Your task to perform on an android device: visit the assistant section in the google photos Image 0: 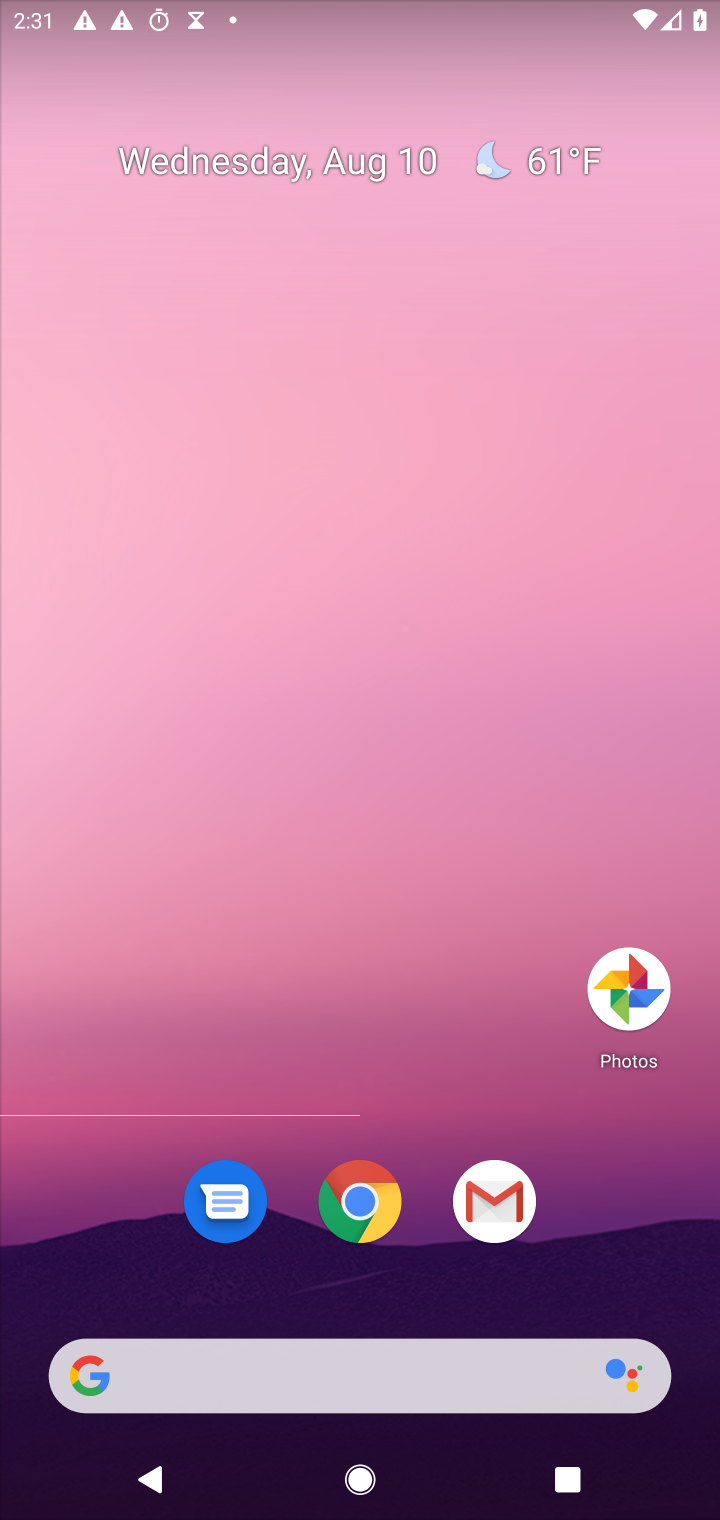
Step 0: press home button
Your task to perform on an android device: visit the assistant section in the google photos Image 1: 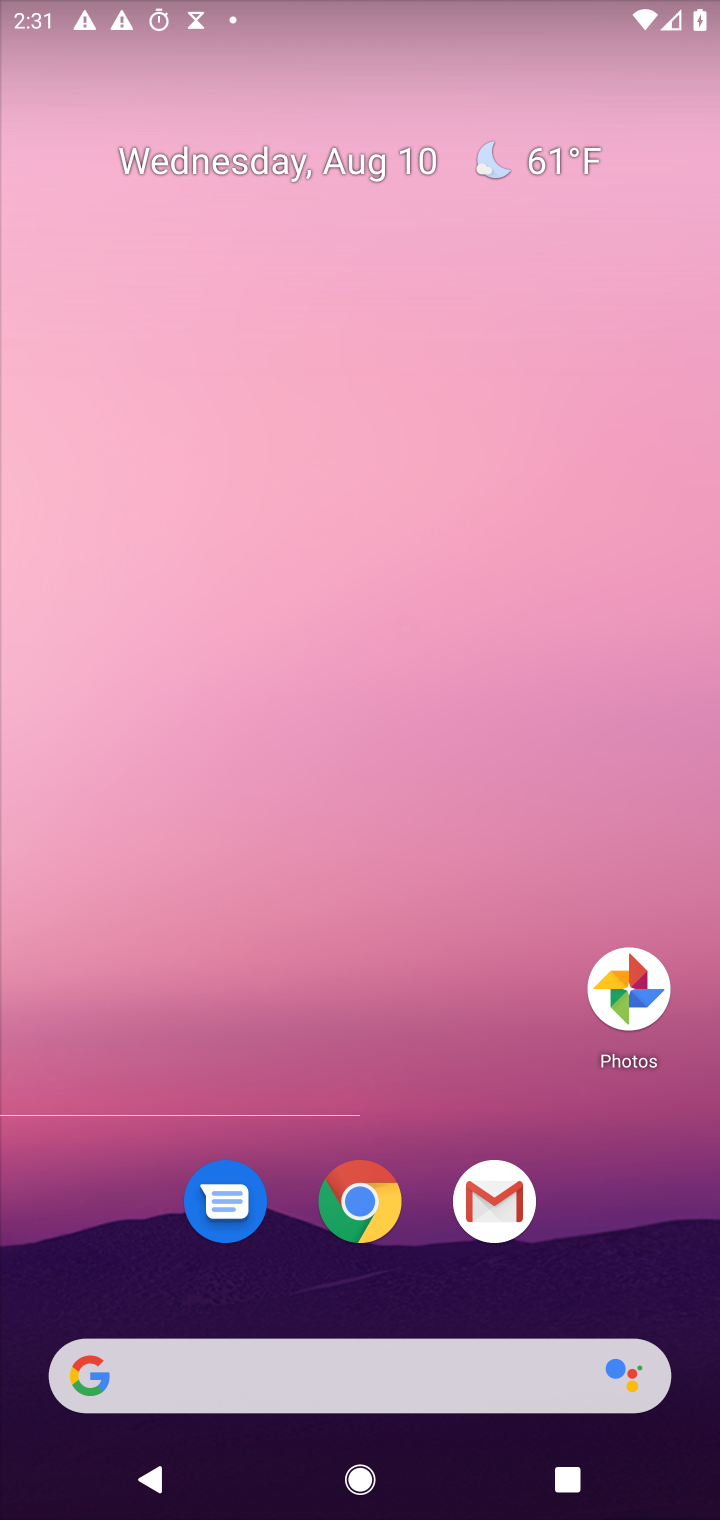
Step 1: click (624, 989)
Your task to perform on an android device: visit the assistant section in the google photos Image 2: 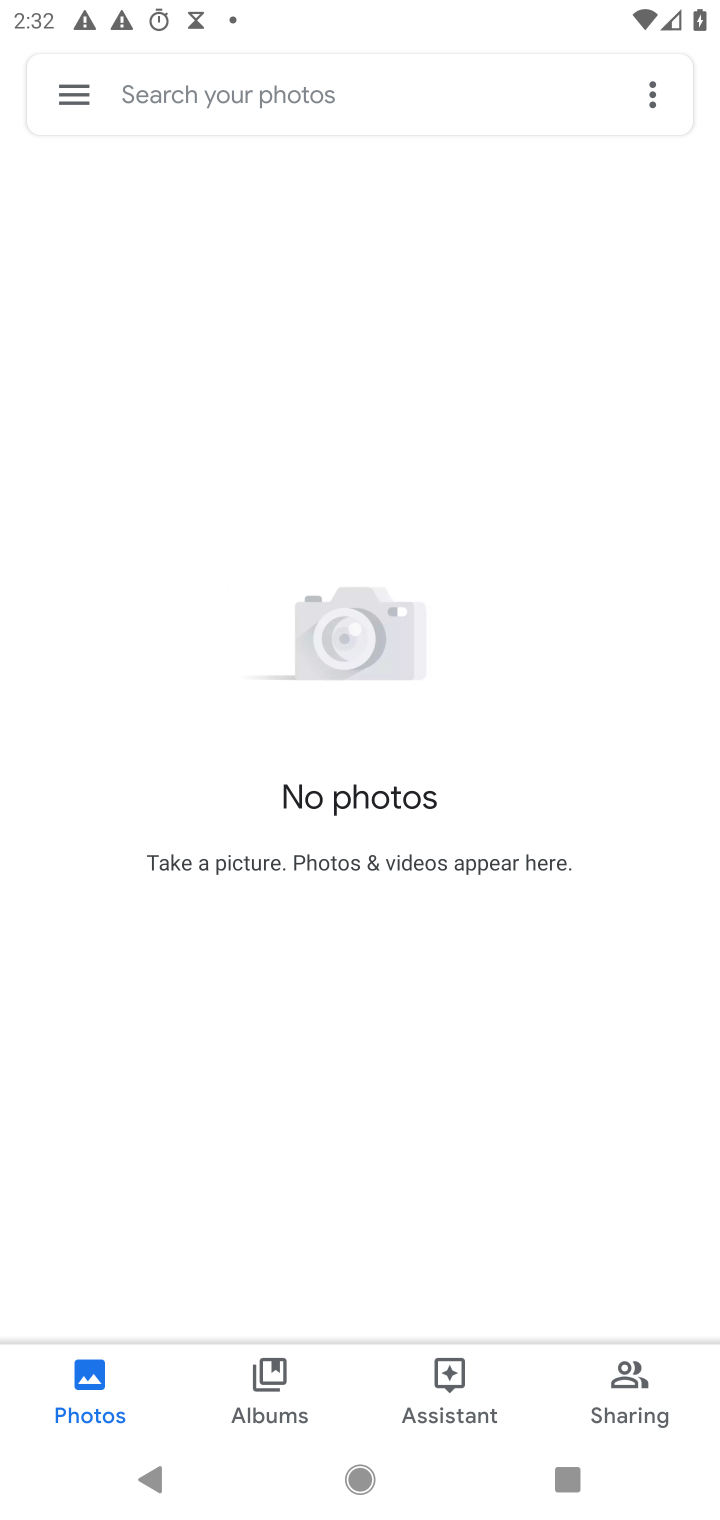
Step 2: click (449, 1373)
Your task to perform on an android device: visit the assistant section in the google photos Image 3: 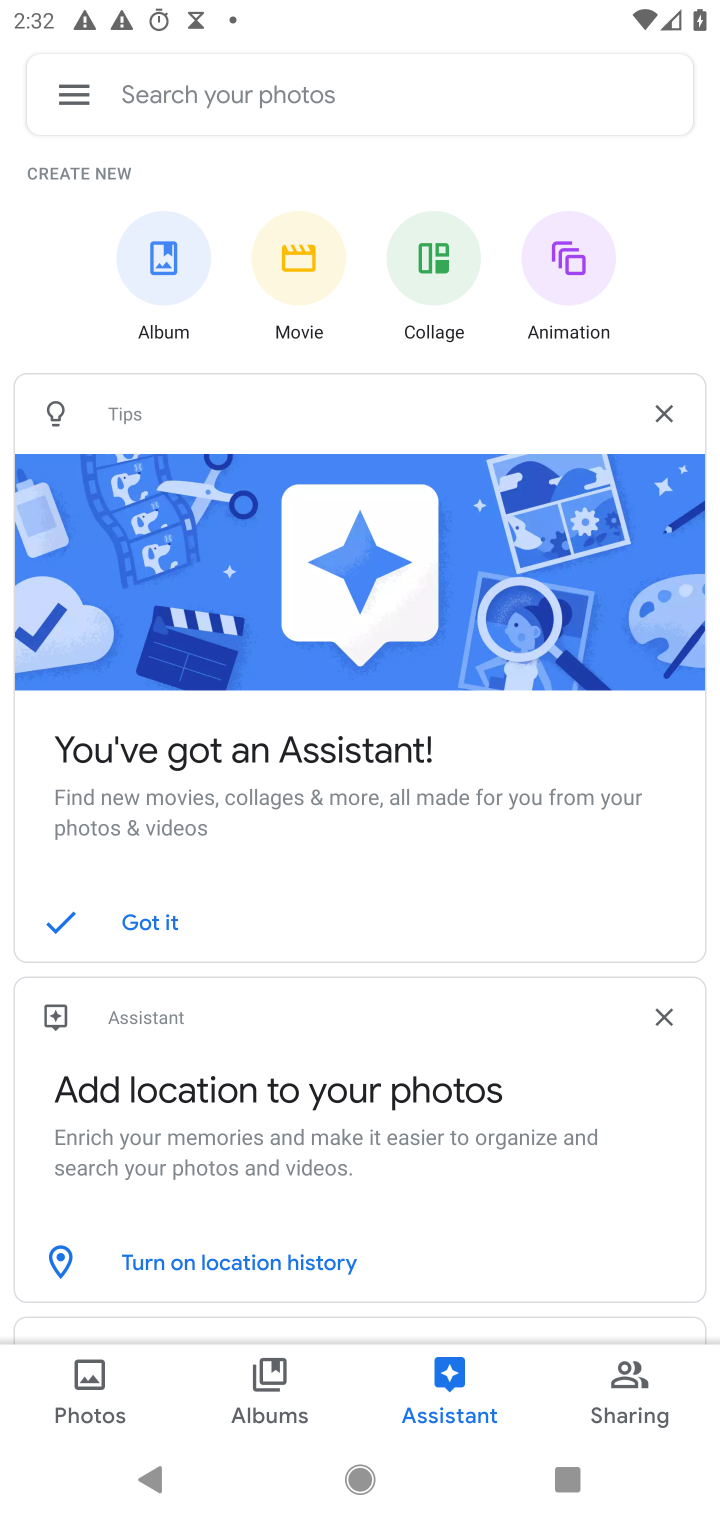
Step 3: task complete